Your task to perform on an android device: change the upload size in google photos Image 0: 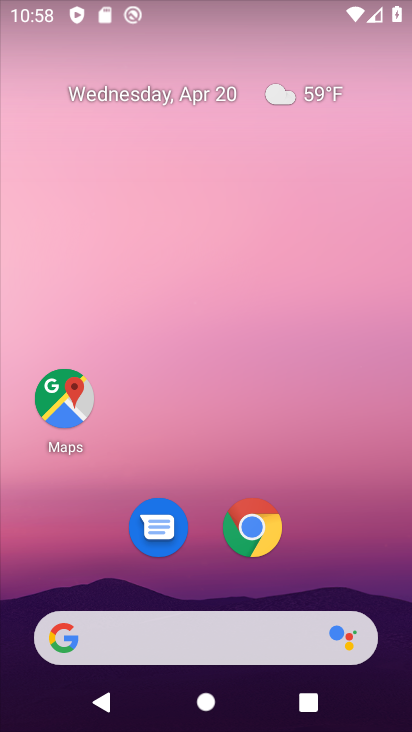
Step 0: drag from (381, 547) to (355, 100)
Your task to perform on an android device: change the upload size in google photos Image 1: 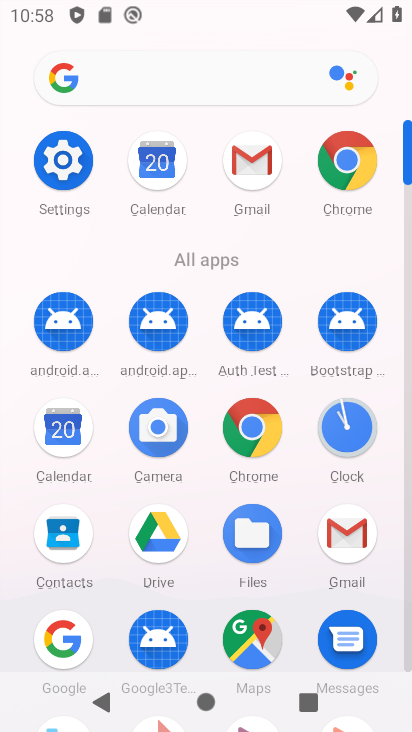
Step 1: drag from (210, 577) to (187, 289)
Your task to perform on an android device: change the upload size in google photos Image 2: 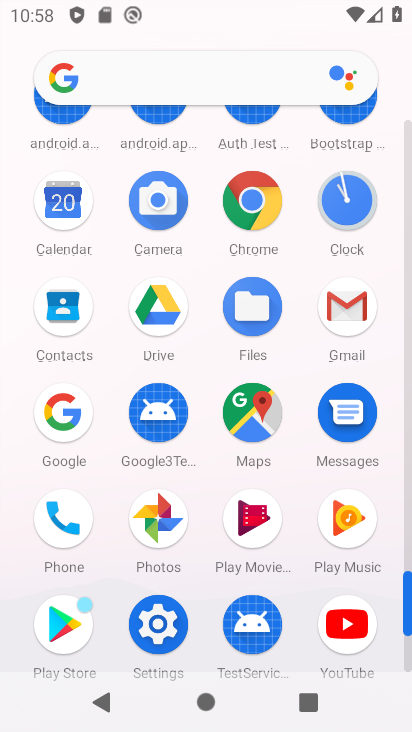
Step 2: click (158, 537)
Your task to perform on an android device: change the upload size in google photos Image 3: 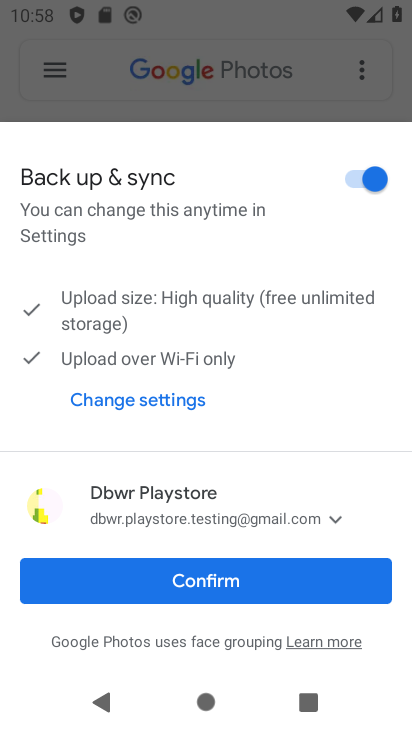
Step 3: click (175, 584)
Your task to perform on an android device: change the upload size in google photos Image 4: 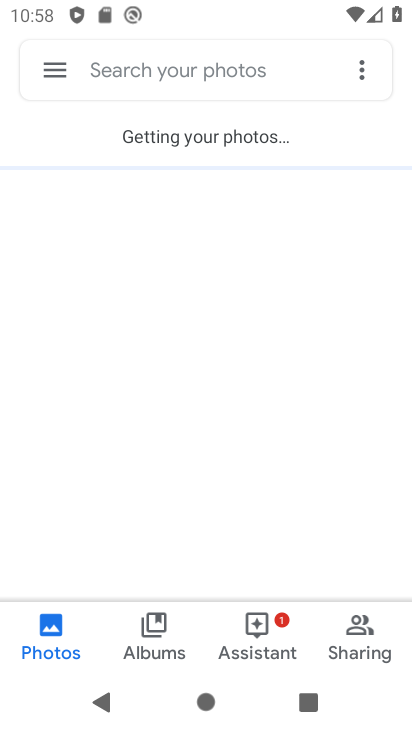
Step 4: click (57, 67)
Your task to perform on an android device: change the upload size in google photos Image 5: 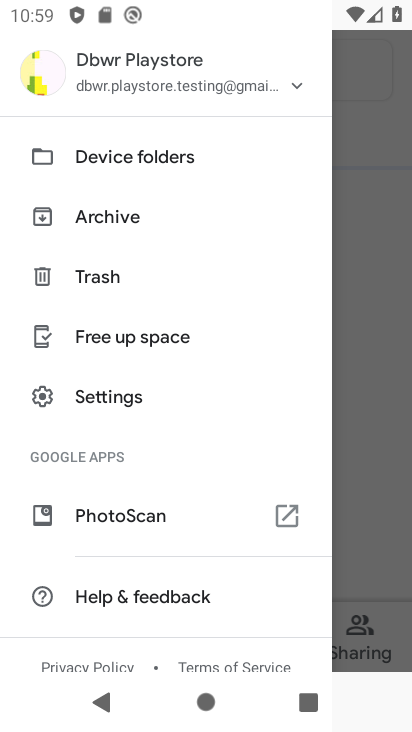
Step 5: click (107, 401)
Your task to perform on an android device: change the upload size in google photos Image 6: 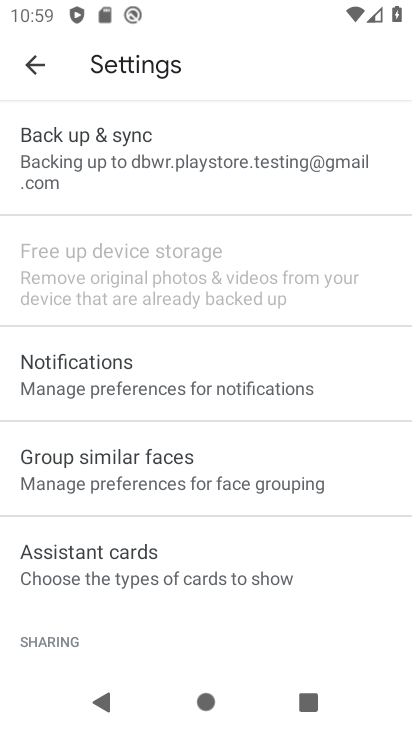
Step 6: click (145, 171)
Your task to perform on an android device: change the upload size in google photos Image 7: 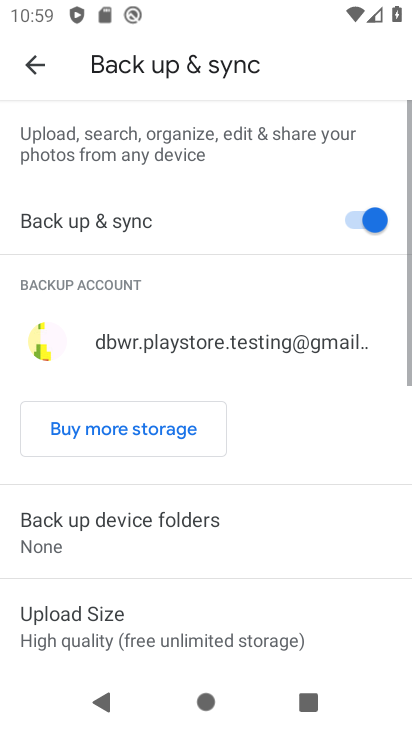
Step 7: click (135, 626)
Your task to perform on an android device: change the upload size in google photos Image 8: 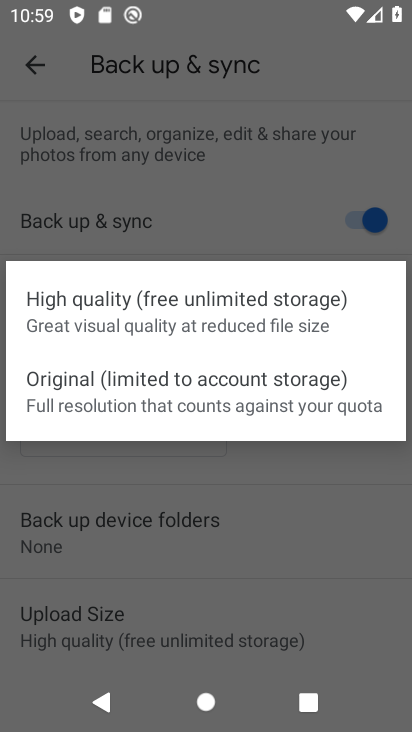
Step 8: click (173, 403)
Your task to perform on an android device: change the upload size in google photos Image 9: 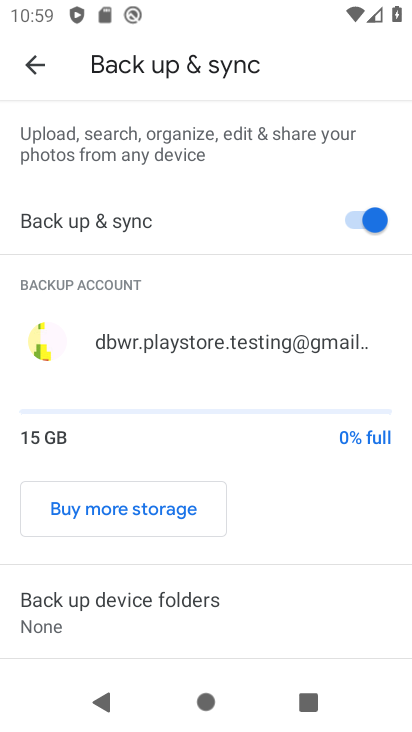
Step 9: task complete